Your task to perform on an android device: Open Youtube and go to the subscriptions tab Image 0: 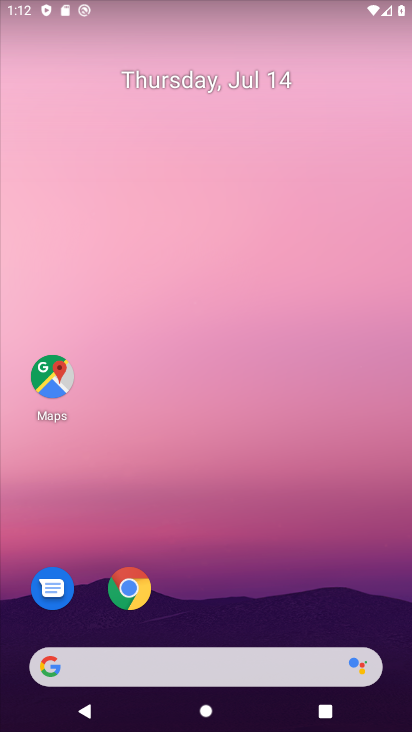
Step 0: drag from (257, 712) to (265, 218)
Your task to perform on an android device: Open Youtube and go to the subscriptions tab Image 1: 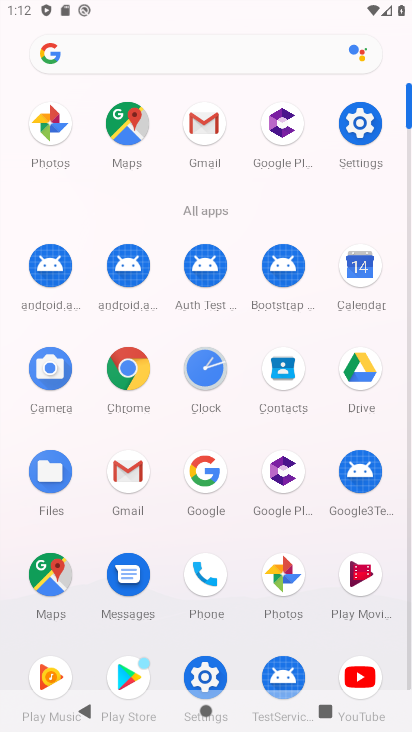
Step 1: drag from (351, 628) to (306, 254)
Your task to perform on an android device: Open Youtube and go to the subscriptions tab Image 2: 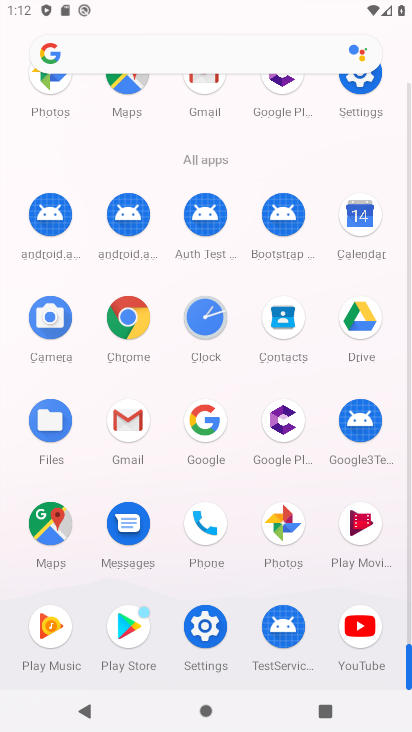
Step 2: click (362, 641)
Your task to perform on an android device: Open Youtube and go to the subscriptions tab Image 3: 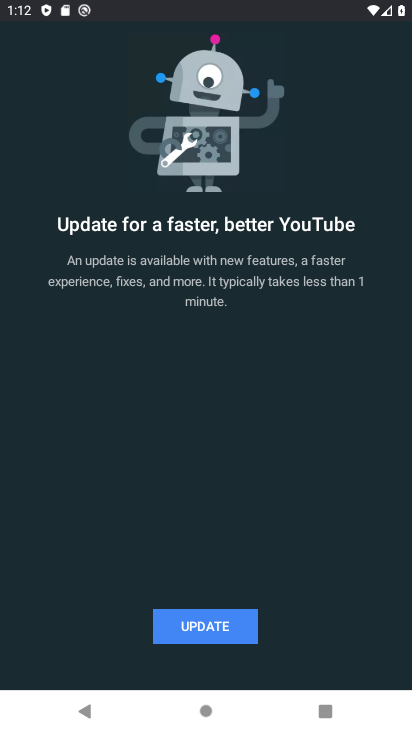
Step 3: click (221, 634)
Your task to perform on an android device: Open Youtube and go to the subscriptions tab Image 4: 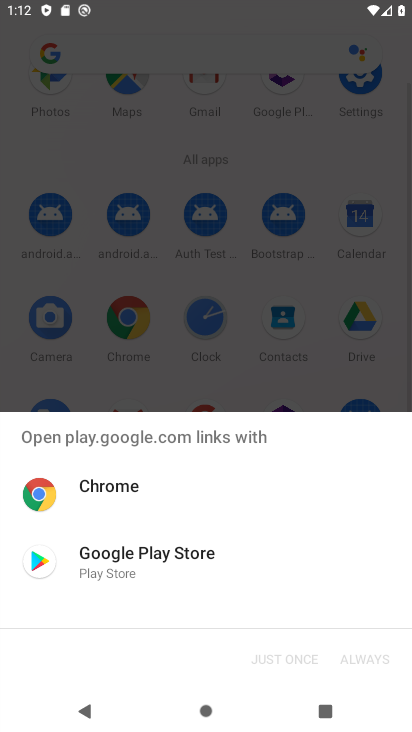
Step 4: click (173, 566)
Your task to perform on an android device: Open Youtube and go to the subscriptions tab Image 5: 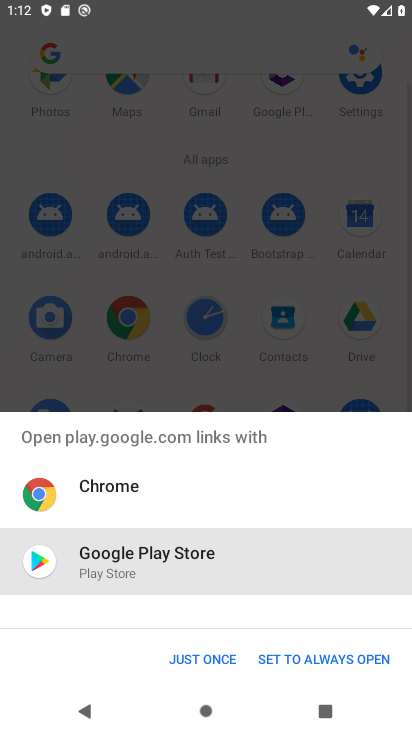
Step 5: click (226, 664)
Your task to perform on an android device: Open Youtube and go to the subscriptions tab Image 6: 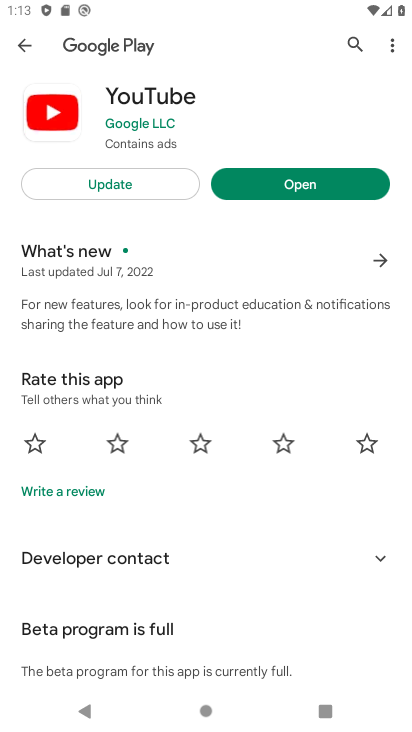
Step 6: click (158, 189)
Your task to perform on an android device: Open Youtube and go to the subscriptions tab Image 7: 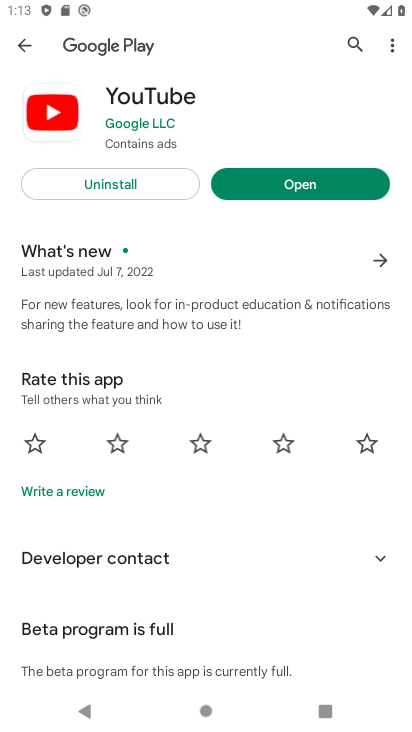
Step 7: click (231, 192)
Your task to perform on an android device: Open Youtube and go to the subscriptions tab Image 8: 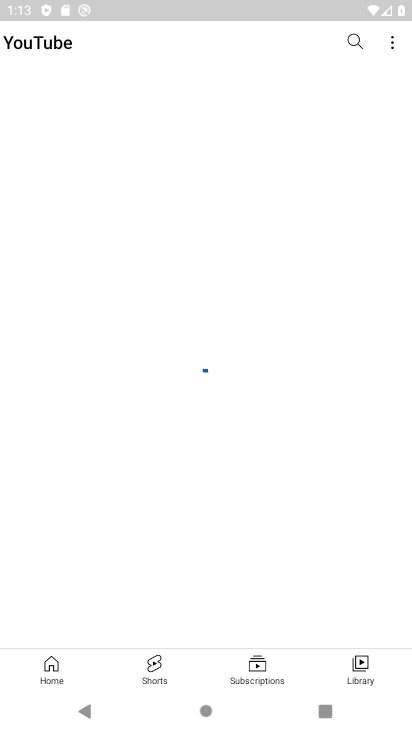
Step 8: click (266, 670)
Your task to perform on an android device: Open Youtube and go to the subscriptions tab Image 9: 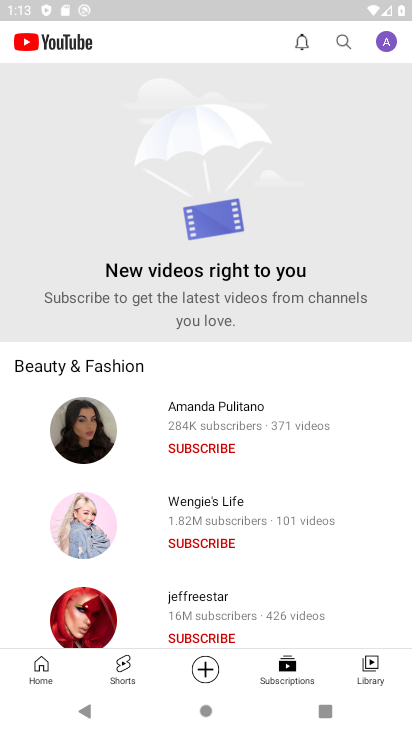
Step 9: task complete